Your task to perform on an android device: toggle improve location accuracy Image 0: 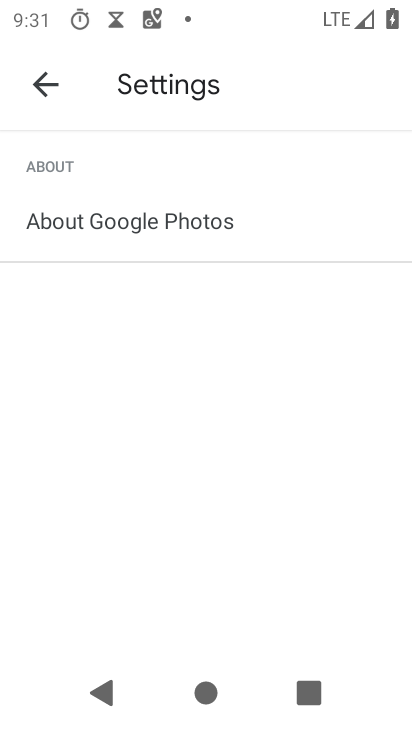
Step 0: press home button
Your task to perform on an android device: toggle improve location accuracy Image 1: 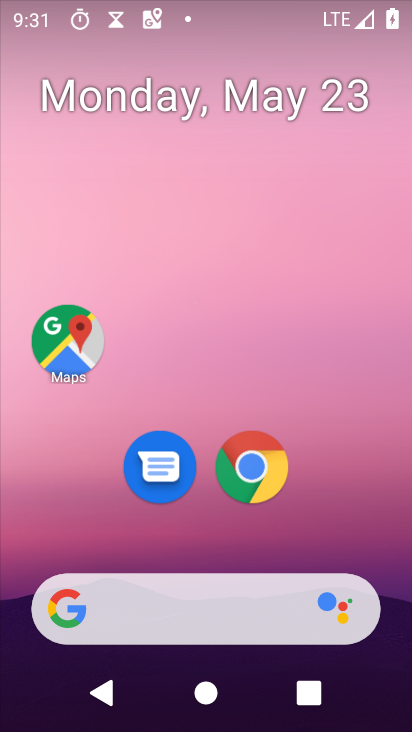
Step 1: drag from (316, 526) to (231, 119)
Your task to perform on an android device: toggle improve location accuracy Image 2: 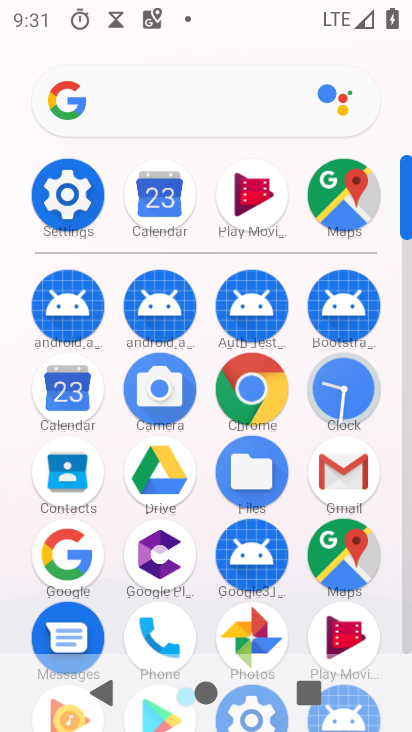
Step 2: click (86, 195)
Your task to perform on an android device: toggle improve location accuracy Image 3: 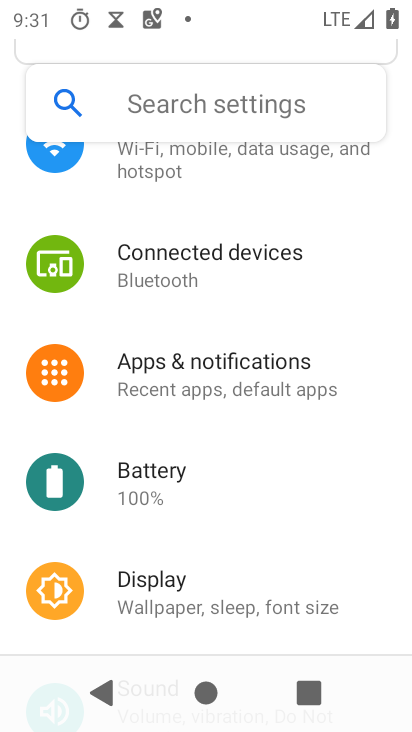
Step 3: drag from (261, 181) to (259, 129)
Your task to perform on an android device: toggle improve location accuracy Image 4: 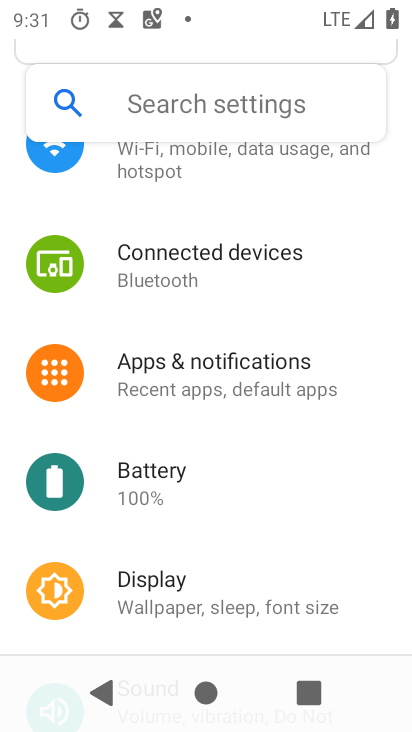
Step 4: drag from (215, 566) to (164, 169)
Your task to perform on an android device: toggle improve location accuracy Image 5: 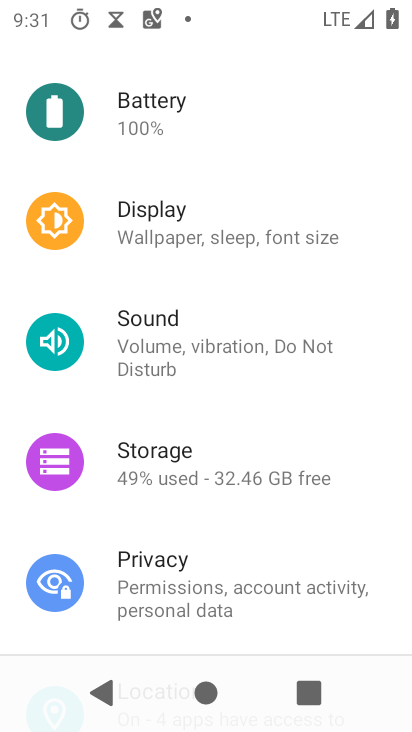
Step 5: drag from (190, 456) to (191, 101)
Your task to perform on an android device: toggle improve location accuracy Image 6: 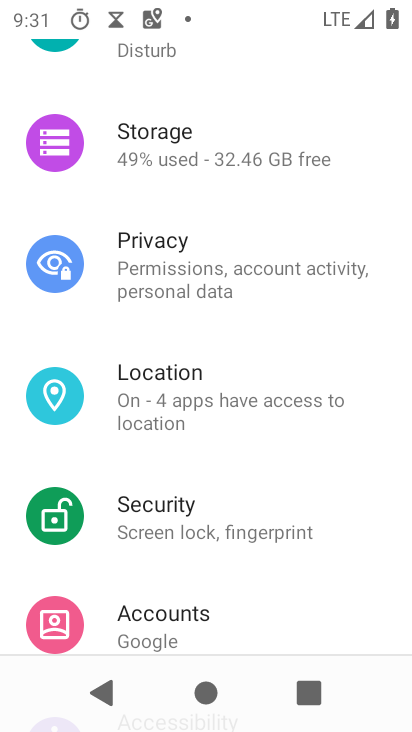
Step 6: click (186, 375)
Your task to perform on an android device: toggle improve location accuracy Image 7: 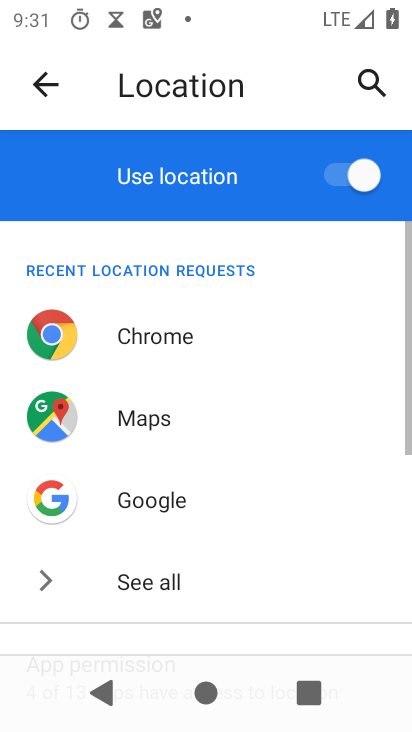
Step 7: drag from (254, 551) to (257, 50)
Your task to perform on an android device: toggle improve location accuracy Image 8: 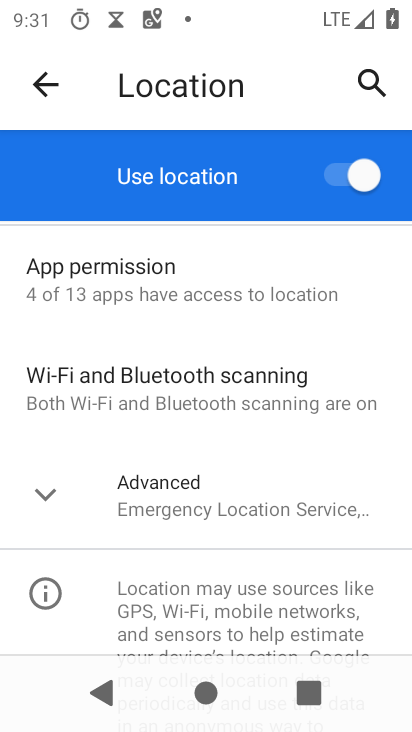
Step 8: click (195, 475)
Your task to perform on an android device: toggle improve location accuracy Image 9: 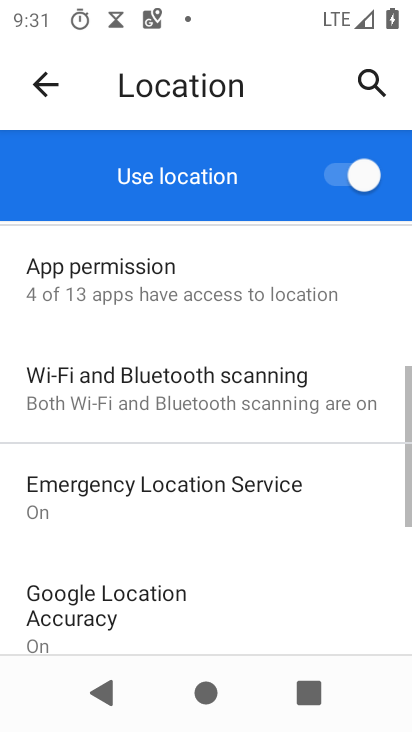
Step 9: drag from (251, 618) to (217, 356)
Your task to perform on an android device: toggle improve location accuracy Image 10: 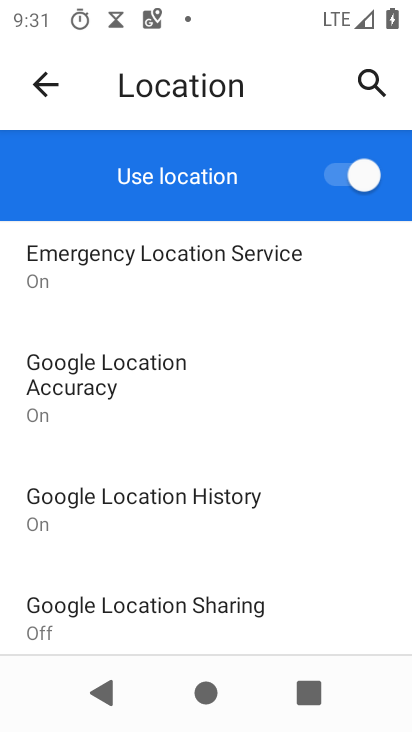
Step 10: click (153, 386)
Your task to perform on an android device: toggle improve location accuracy Image 11: 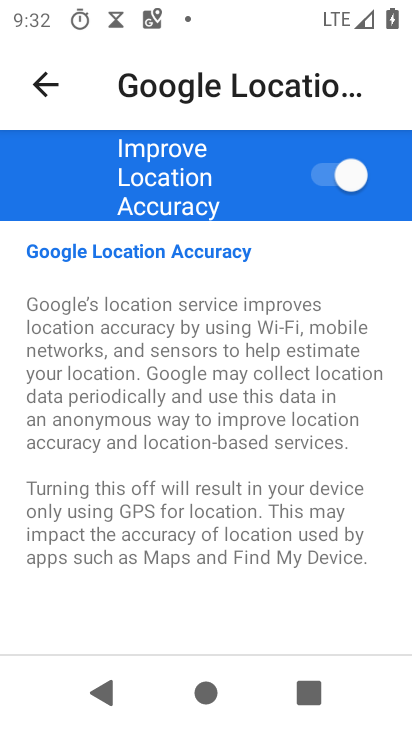
Step 11: click (353, 188)
Your task to perform on an android device: toggle improve location accuracy Image 12: 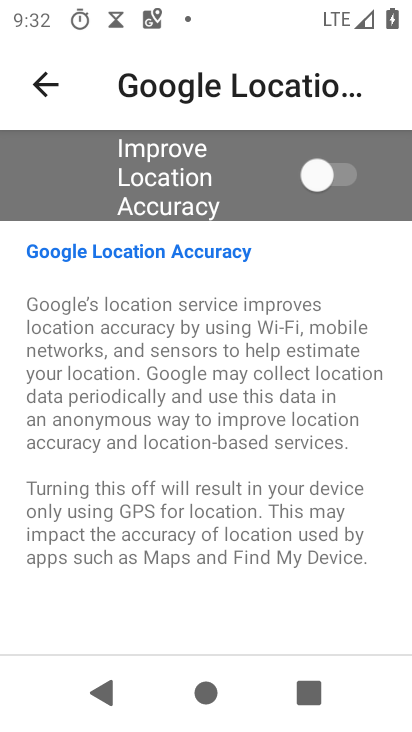
Step 12: task complete